Your task to perform on an android device: Toggle the flashlight Image 0: 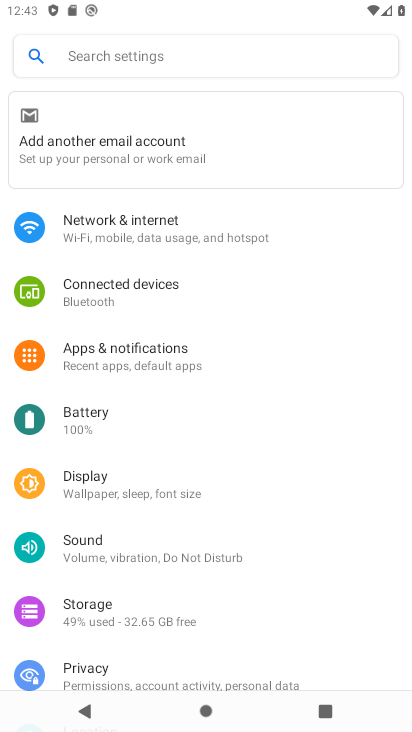
Step 0: press home button
Your task to perform on an android device: Toggle the flashlight Image 1: 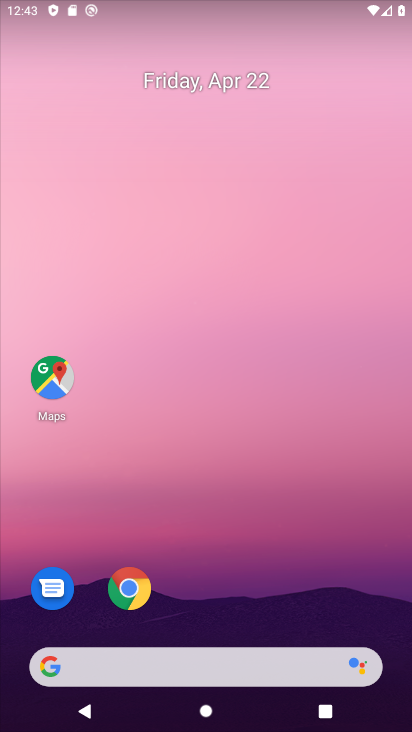
Step 1: drag from (352, 379) to (355, 36)
Your task to perform on an android device: Toggle the flashlight Image 2: 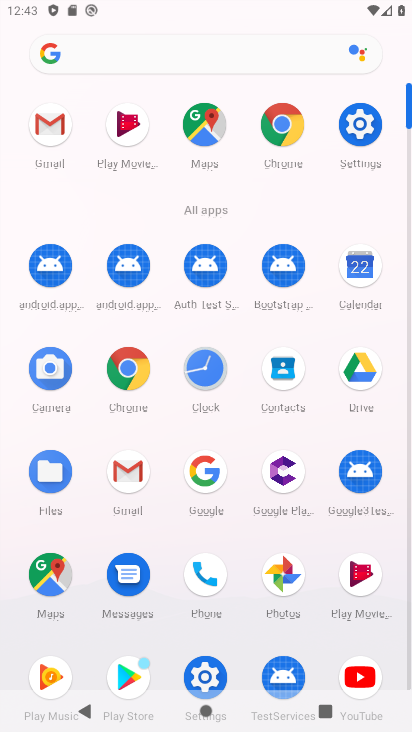
Step 2: click (348, 117)
Your task to perform on an android device: Toggle the flashlight Image 3: 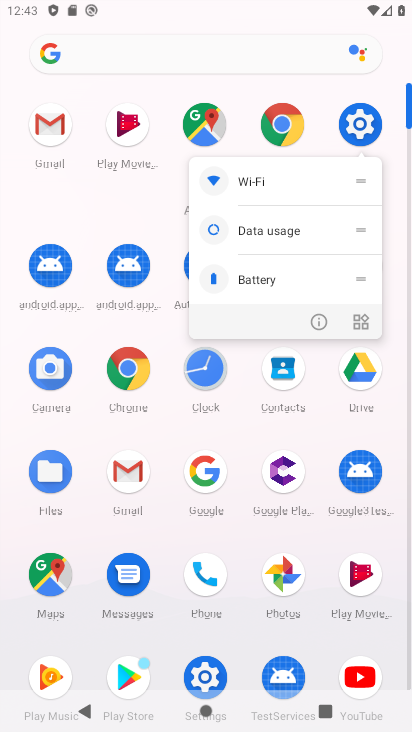
Step 3: click (334, 140)
Your task to perform on an android device: Toggle the flashlight Image 4: 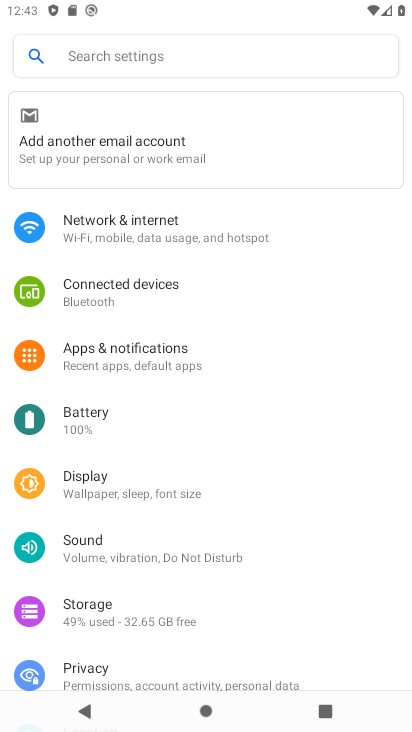
Step 4: click (204, 60)
Your task to perform on an android device: Toggle the flashlight Image 5: 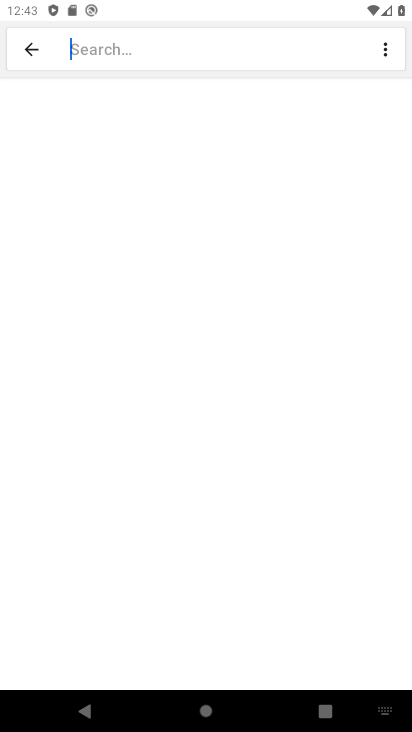
Step 5: type "flashlight"
Your task to perform on an android device: Toggle the flashlight Image 6: 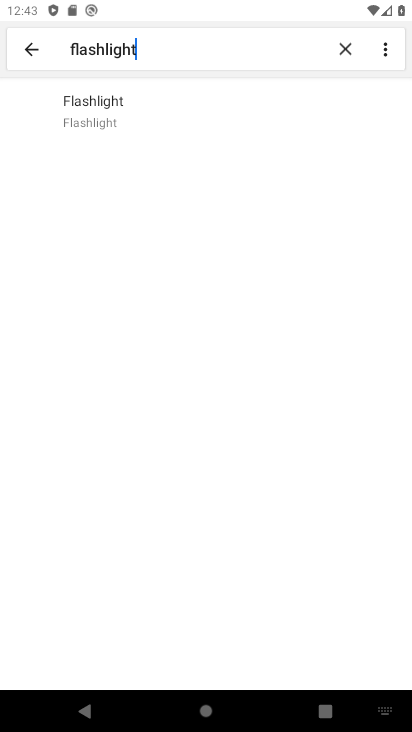
Step 6: click (89, 96)
Your task to perform on an android device: Toggle the flashlight Image 7: 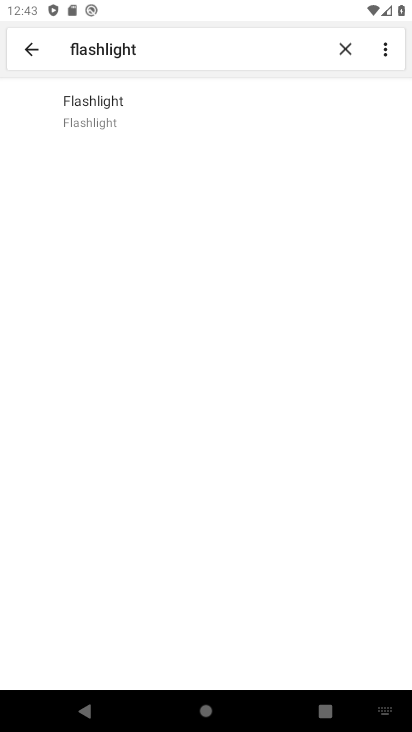
Step 7: task complete